Your task to perform on an android device: toggle show notifications on the lock screen Image 0: 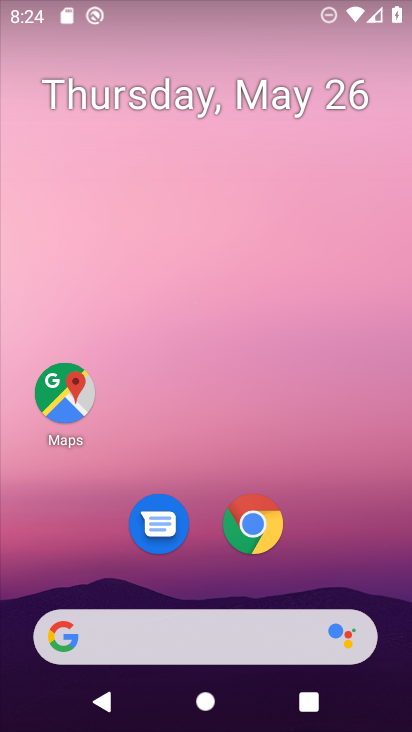
Step 0: drag from (223, 420) to (213, 3)
Your task to perform on an android device: toggle show notifications on the lock screen Image 1: 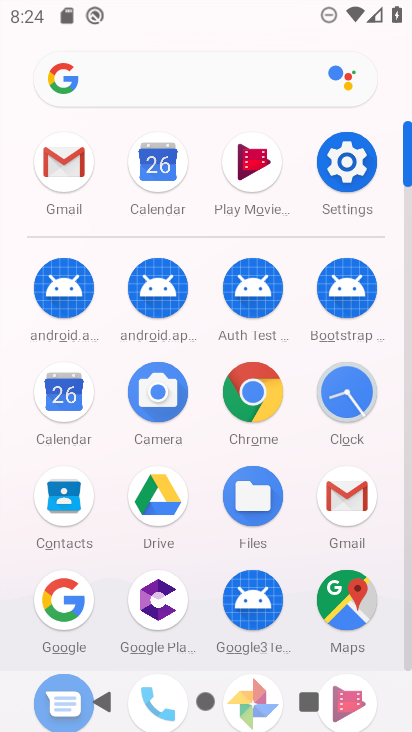
Step 1: click (330, 163)
Your task to perform on an android device: toggle show notifications on the lock screen Image 2: 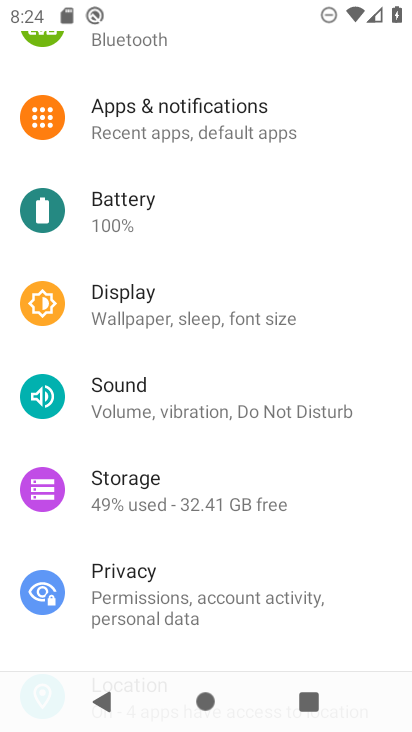
Step 2: click (256, 130)
Your task to perform on an android device: toggle show notifications on the lock screen Image 3: 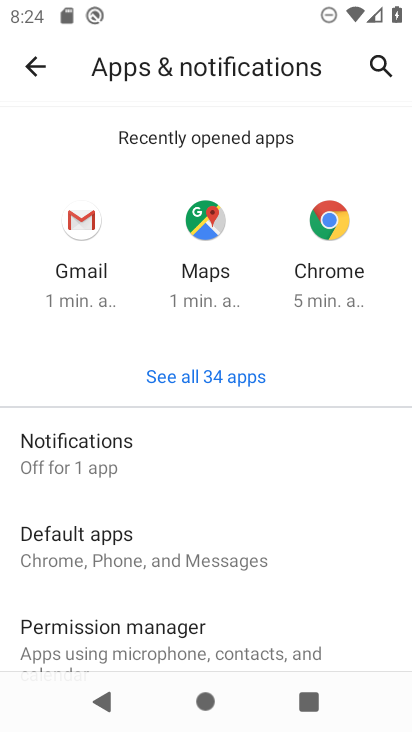
Step 3: click (138, 438)
Your task to perform on an android device: toggle show notifications on the lock screen Image 4: 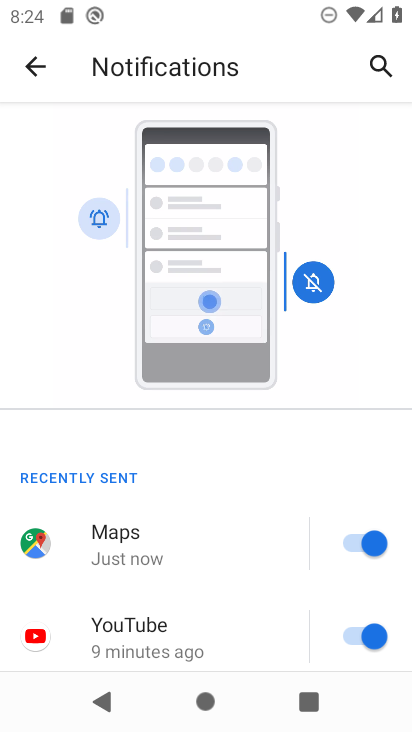
Step 4: drag from (239, 594) to (331, 65)
Your task to perform on an android device: toggle show notifications on the lock screen Image 5: 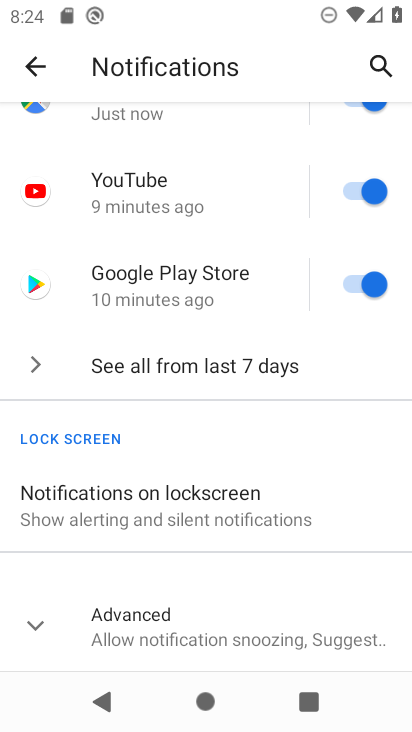
Step 5: click (215, 492)
Your task to perform on an android device: toggle show notifications on the lock screen Image 6: 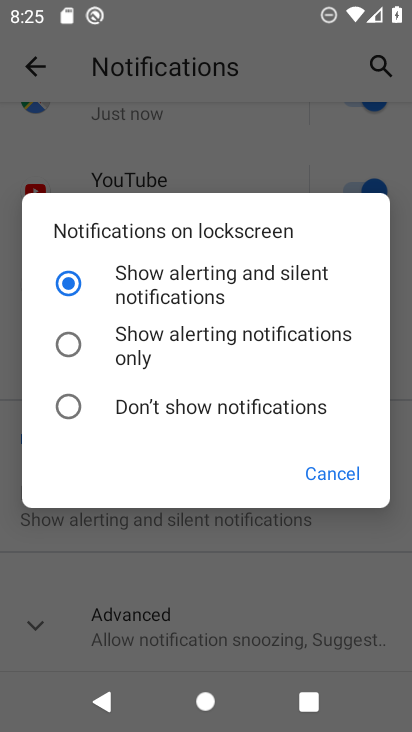
Step 6: click (57, 400)
Your task to perform on an android device: toggle show notifications on the lock screen Image 7: 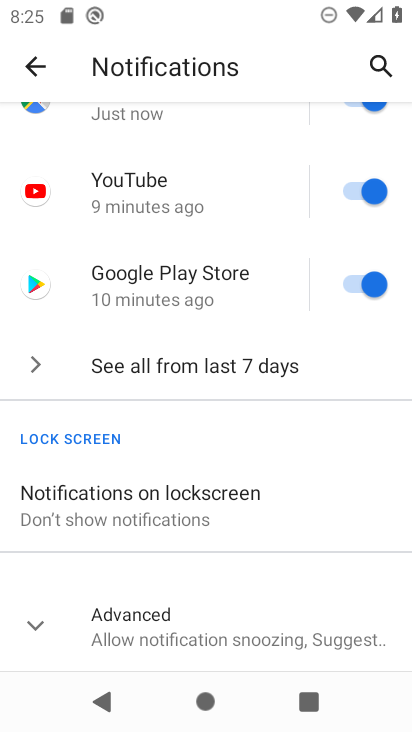
Step 7: task complete